Your task to perform on an android device: open the mobile data screen to see how much data has been used Image 0: 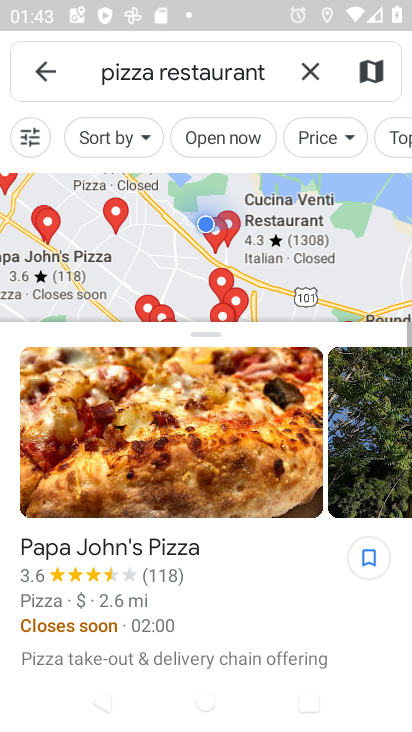
Step 0: press home button
Your task to perform on an android device: open the mobile data screen to see how much data has been used Image 1: 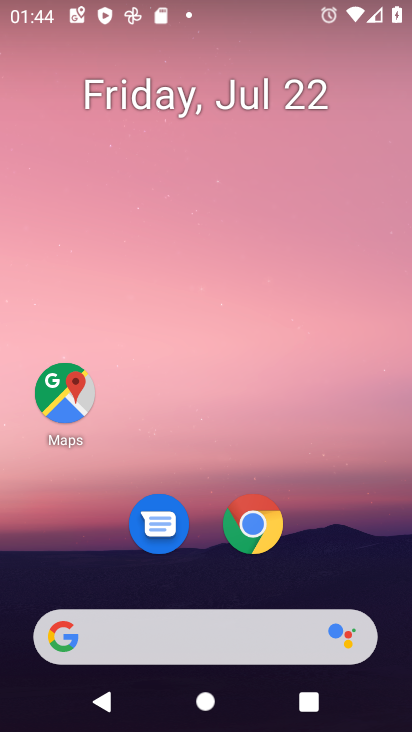
Step 1: drag from (183, 651) to (304, 219)
Your task to perform on an android device: open the mobile data screen to see how much data has been used Image 2: 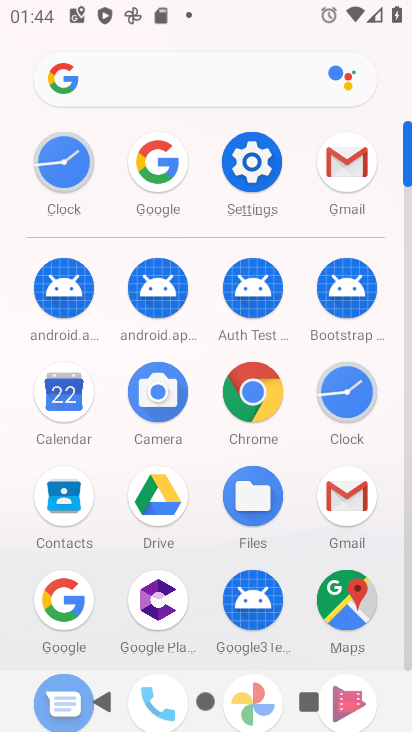
Step 2: click (256, 166)
Your task to perform on an android device: open the mobile data screen to see how much data has been used Image 3: 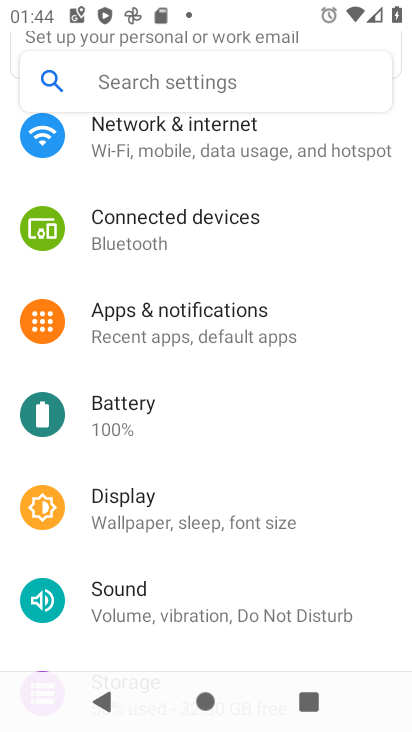
Step 3: click (248, 146)
Your task to perform on an android device: open the mobile data screen to see how much data has been used Image 4: 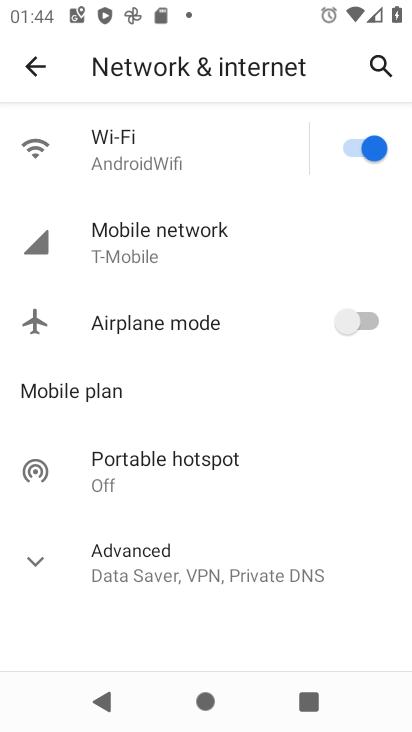
Step 4: click (160, 255)
Your task to perform on an android device: open the mobile data screen to see how much data has been used Image 5: 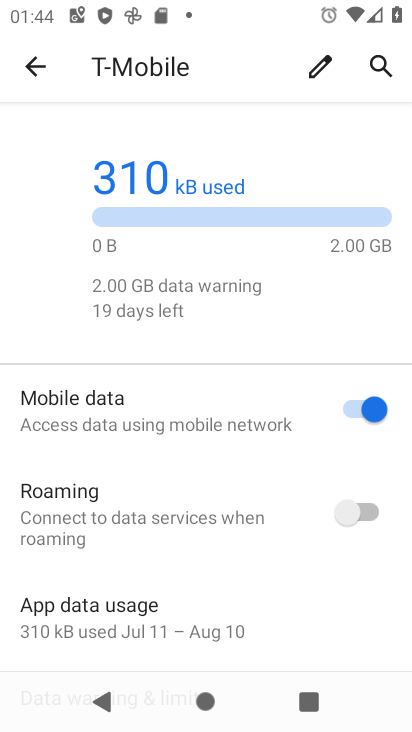
Step 5: task complete